Your task to perform on an android device: set the stopwatch Image 0: 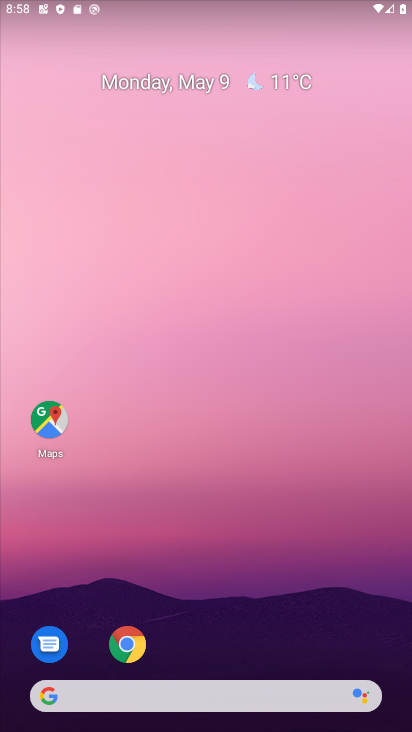
Step 0: drag from (212, 668) to (173, 14)
Your task to perform on an android device: set the stopwatch Image 1: 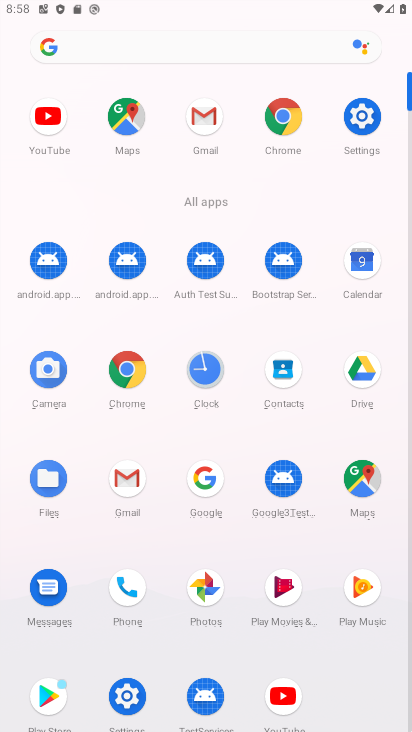
Step 1: click (202, 367)
Your task to perform on an android device: set the stopwatch Image 2: 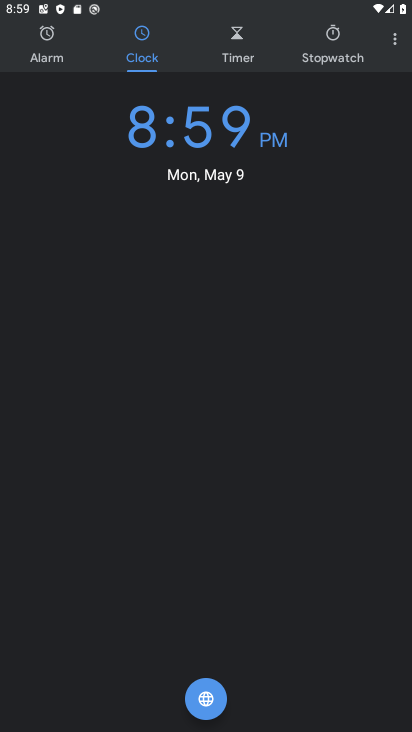
Step 2: click (346, 44)
Your task to perform on an android device: set the stopwatch Image 3: 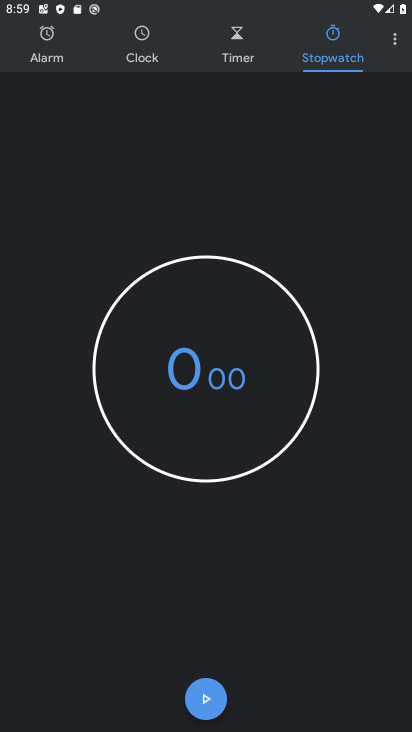
Step 3: task complete